Your task to perform on an android device: Add usb-c to usb-b to the cart on newegg, then select checkout. Image 0: 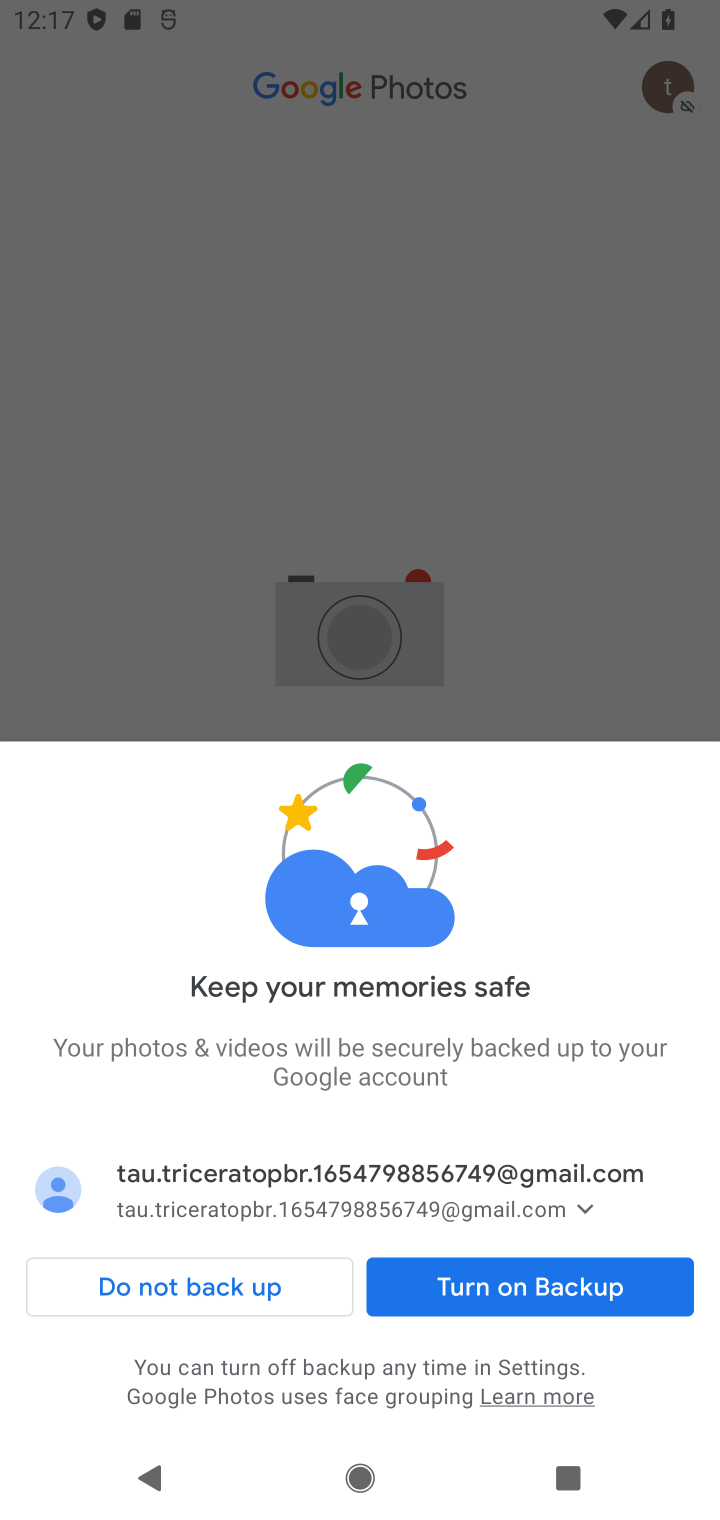
Step 0: click (218, 1287)
Your task to perform on an android device: Add usb-c to usb-b to the cart on newegg, then select checkout. Image 1: 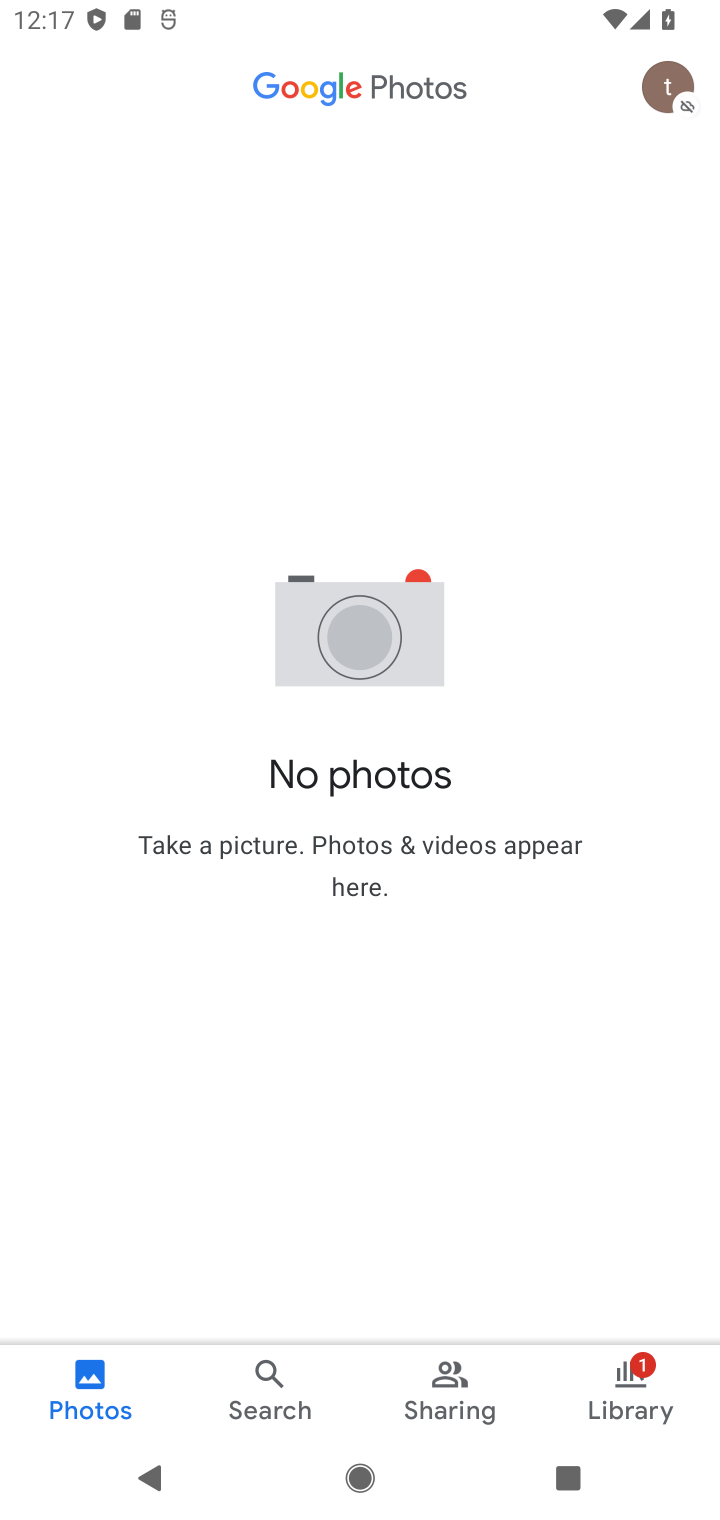
Step 1: press home button
Your task to perform on an android device: Add usb-c to usb-b to the cart on newegg, then select checkout. Image 2: 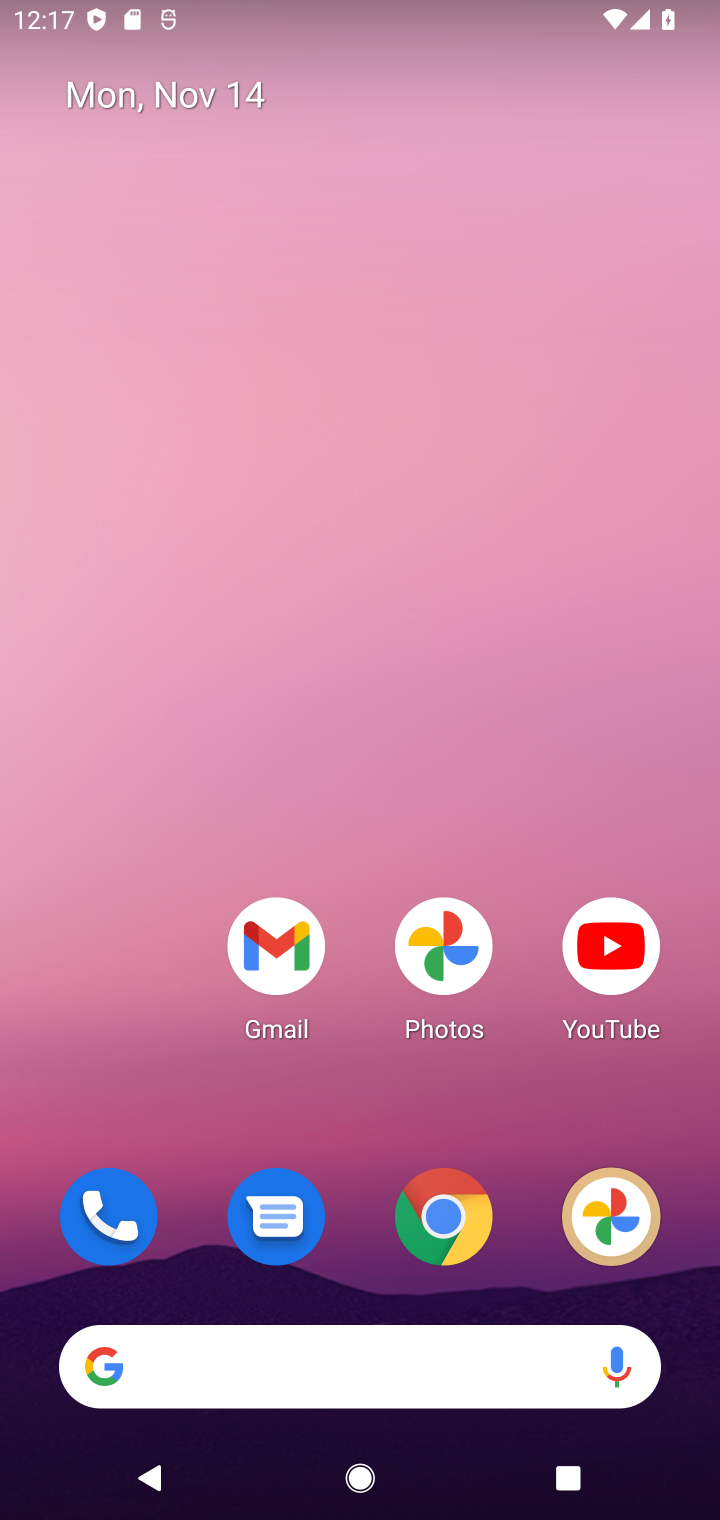
Step 2: click (453, 1226)
Your task to perform on an android device: Add usb-c to usb-b to the cart on newegg, then select checkout. Image 3: 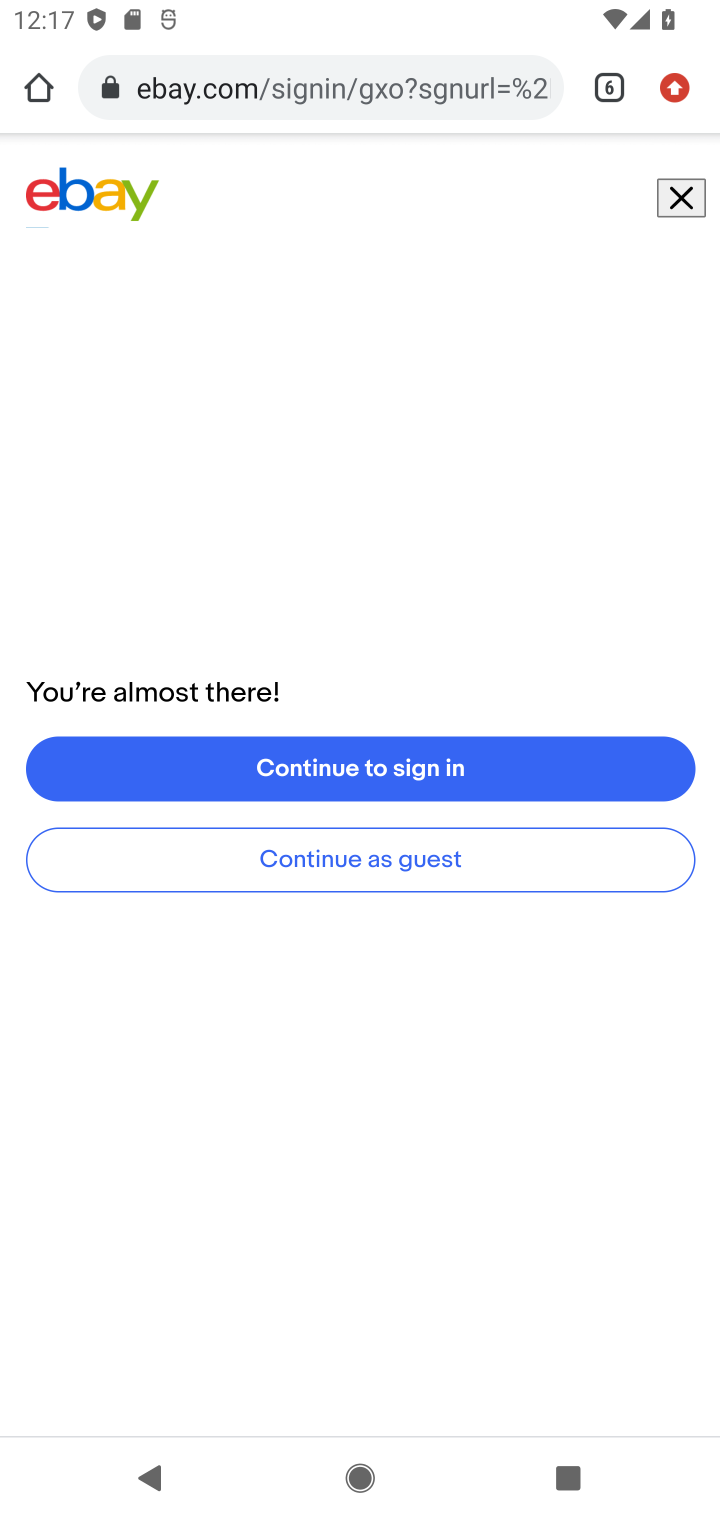
Step 3: click (606, 86)
Your task to perform on an android device: Add usb-c to usb-b to the cart on newegg, then select checkout. Image 4: 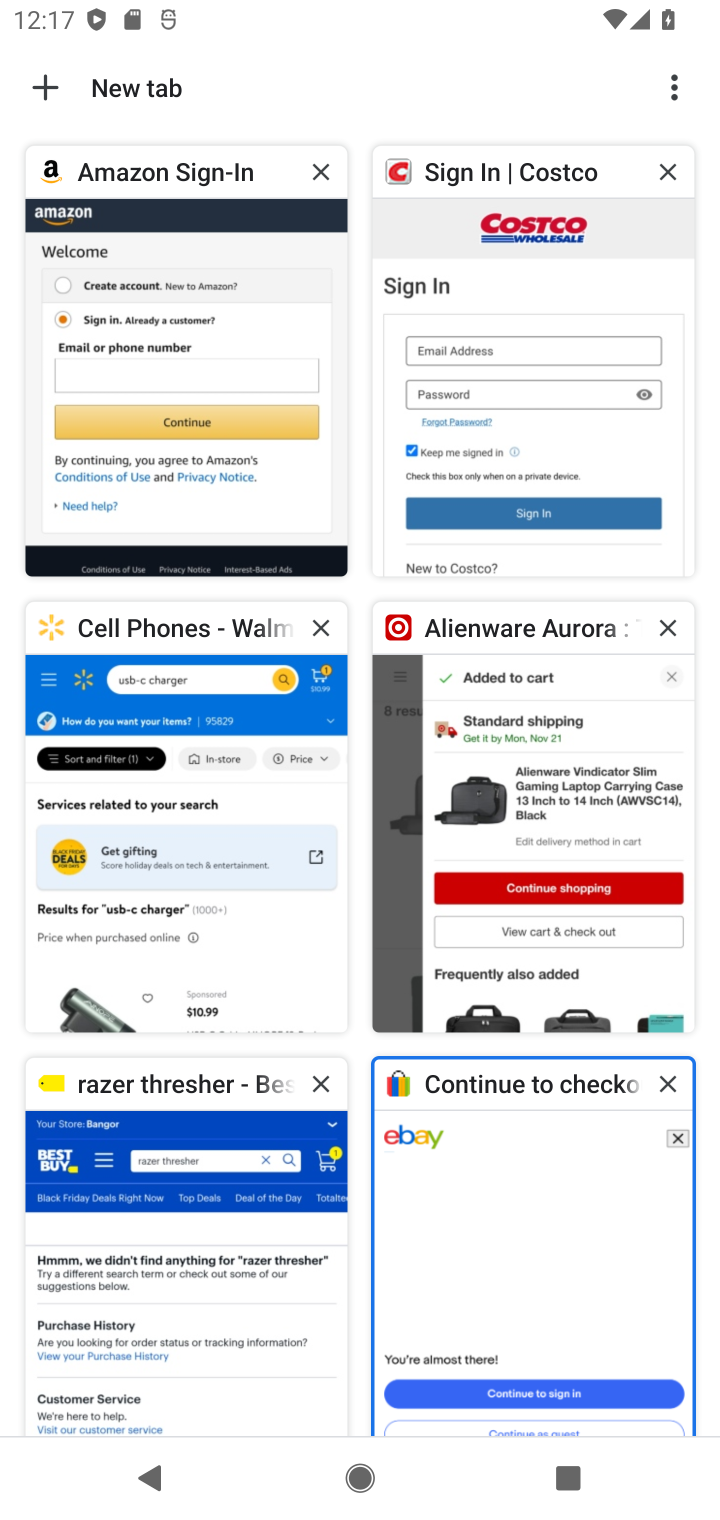
Step 4: click (41, 97)
Your task to perform on an android device: Add usb-c to usb-b to the cart on newegg, then select checkout. Image 5: 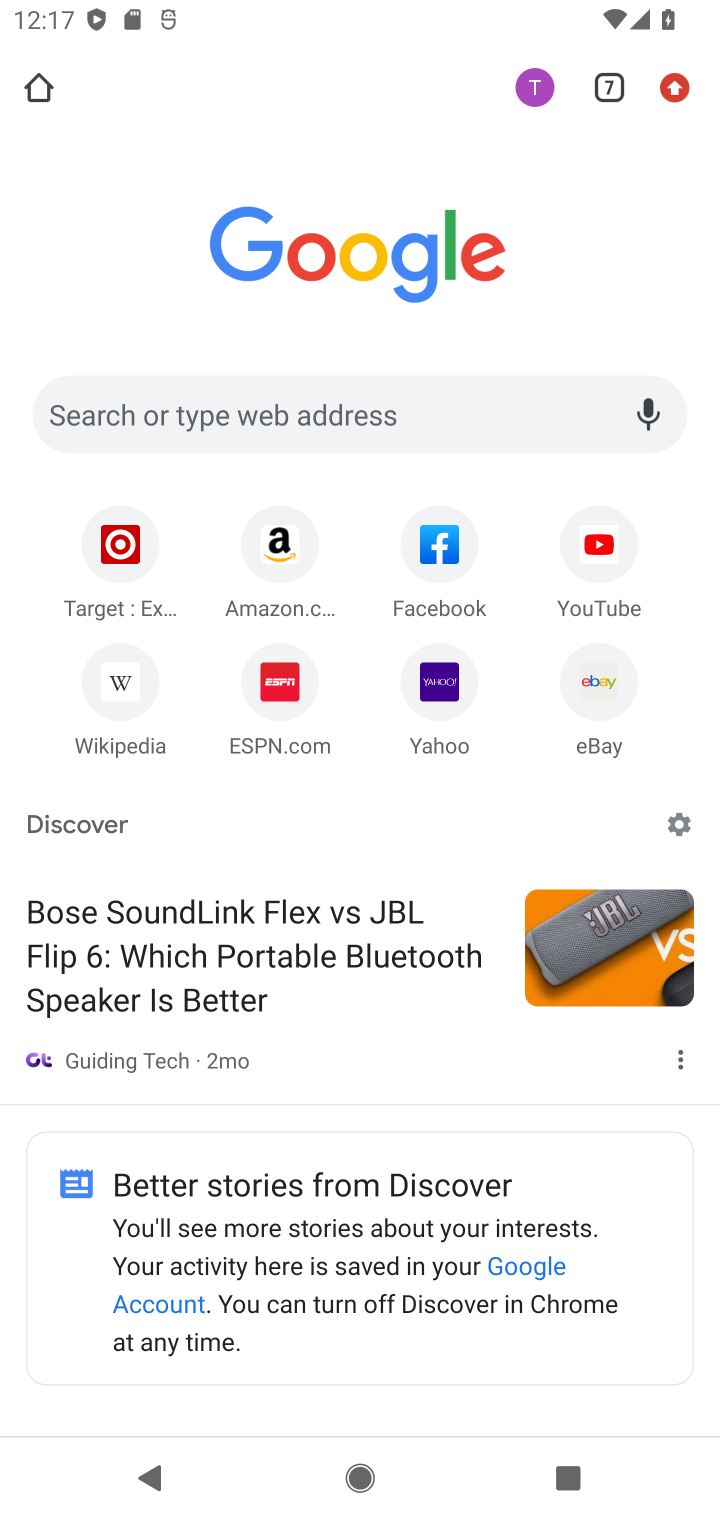
Step 5: click (293, 407)
Your task to perform on an android device: Add usb-c to usb-b to the cart on newegg, then select checkout. Image 6: 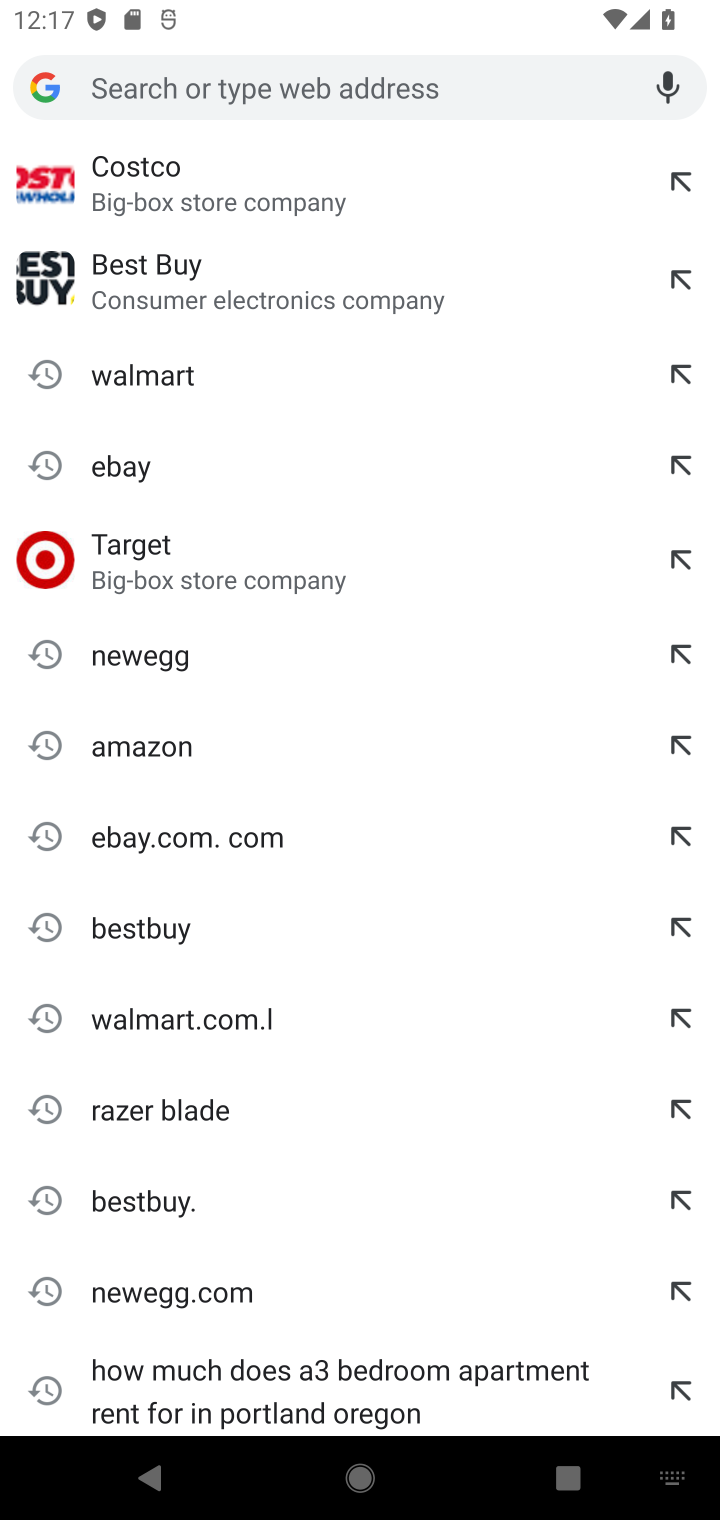
Step 6: click (119, 667)
Your task to perform on an android device: Add usb-c to usb-b to the cart on newegg, then select checkout. Image 7: 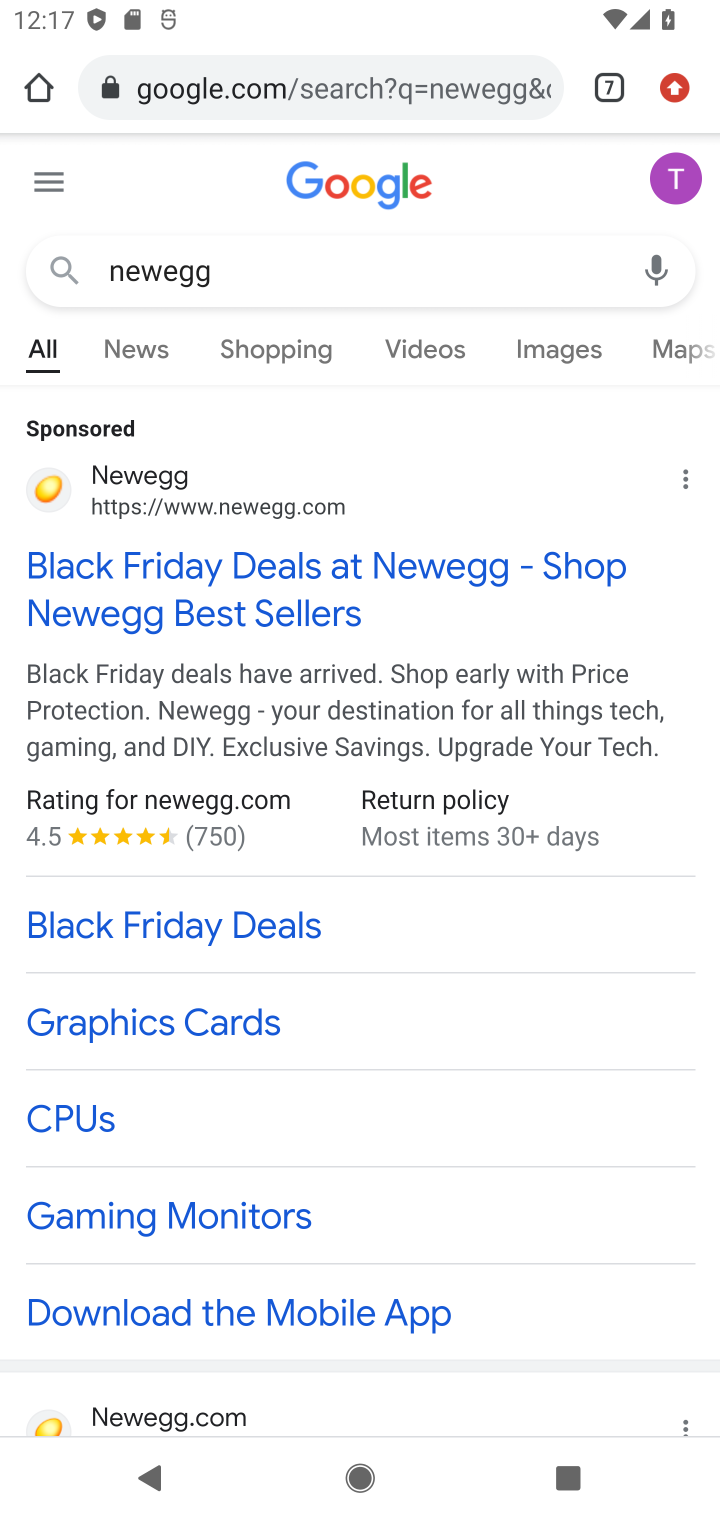
Step 7: drag from (325, 929) to (513, 264)
Your task to perform on an android device: Add usb-c to usb-b to the cart on newegg, then select checkout. Image 8: 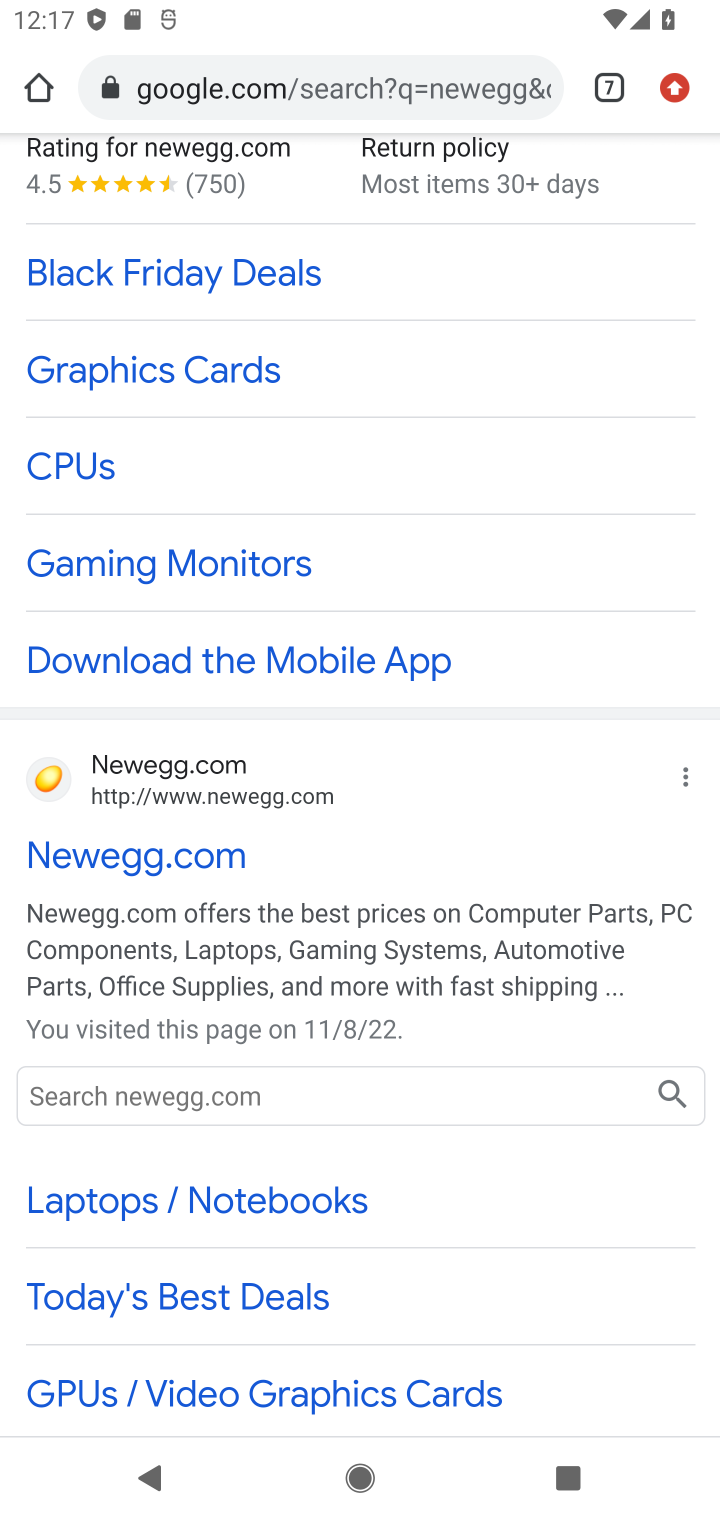
Step 8: click (232, 1093)
Your task to perform on an android device: Add usb-c to usb-b to the cart on newegg, then select checkout. Image 9: 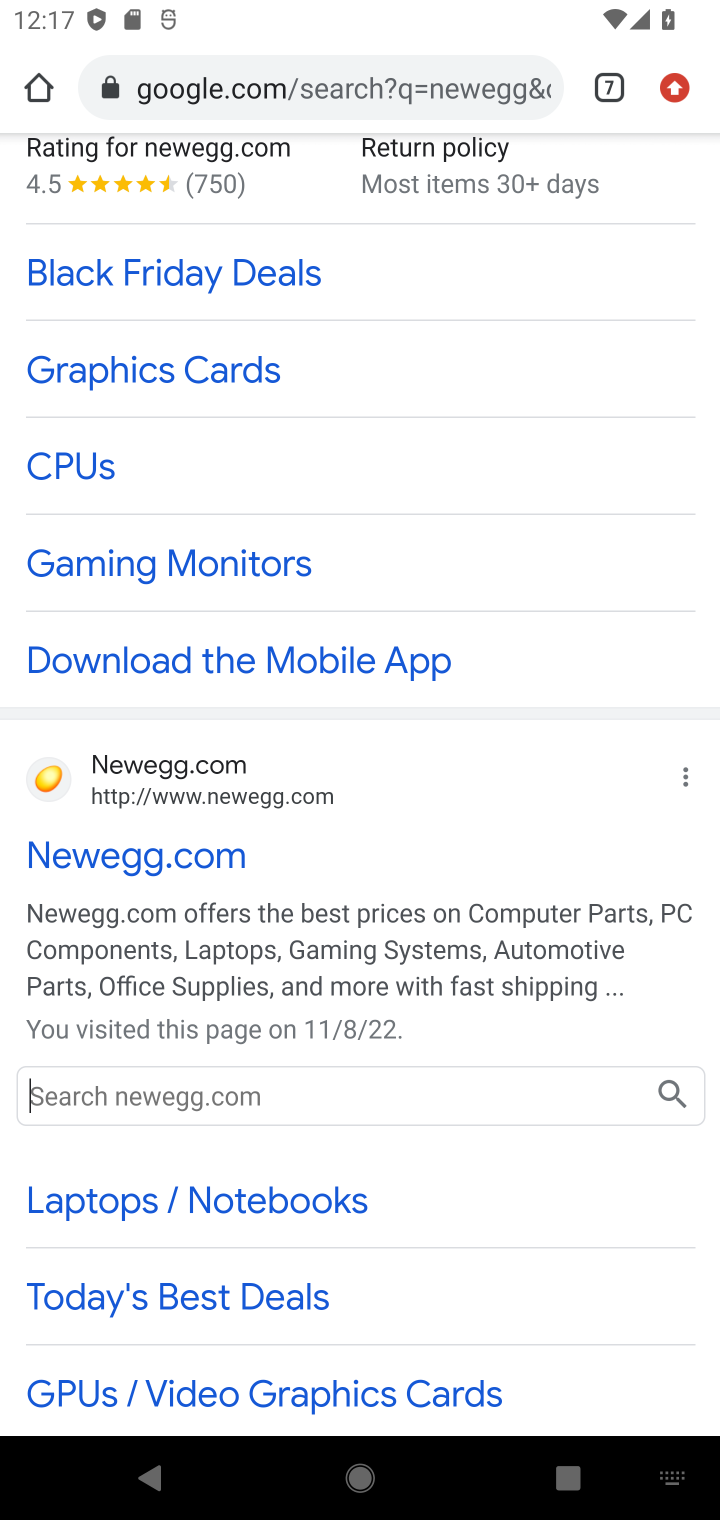
Step 9: type "usb-c to usb-b"
Your task to perform on an android device: Add usb-c to usb-b to the cart on newegg, then select checkout. Image 10: 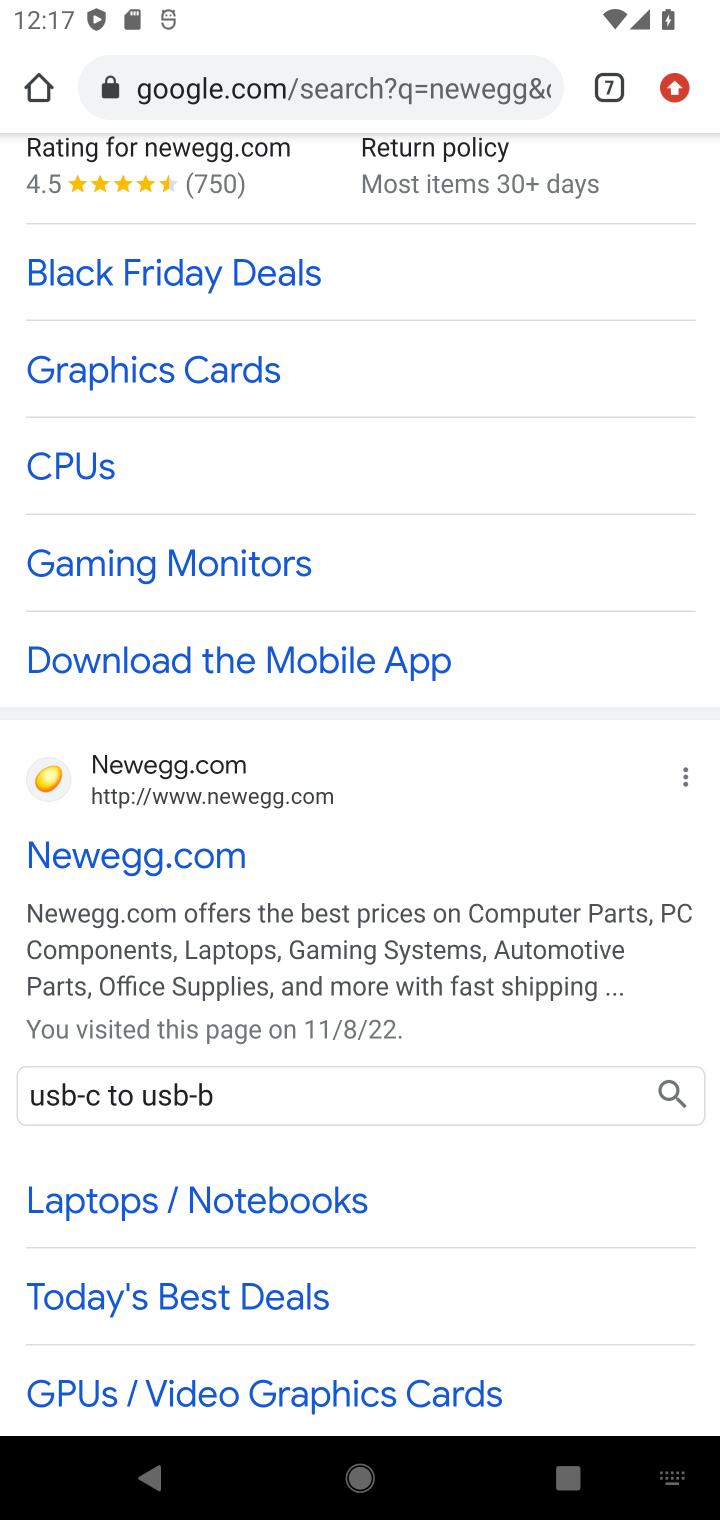
Step 10: click (672, 1086)
Your task to perform on an android device: Add usb-c to usb-b to the cart on newegg, then select checkout. Image 11: 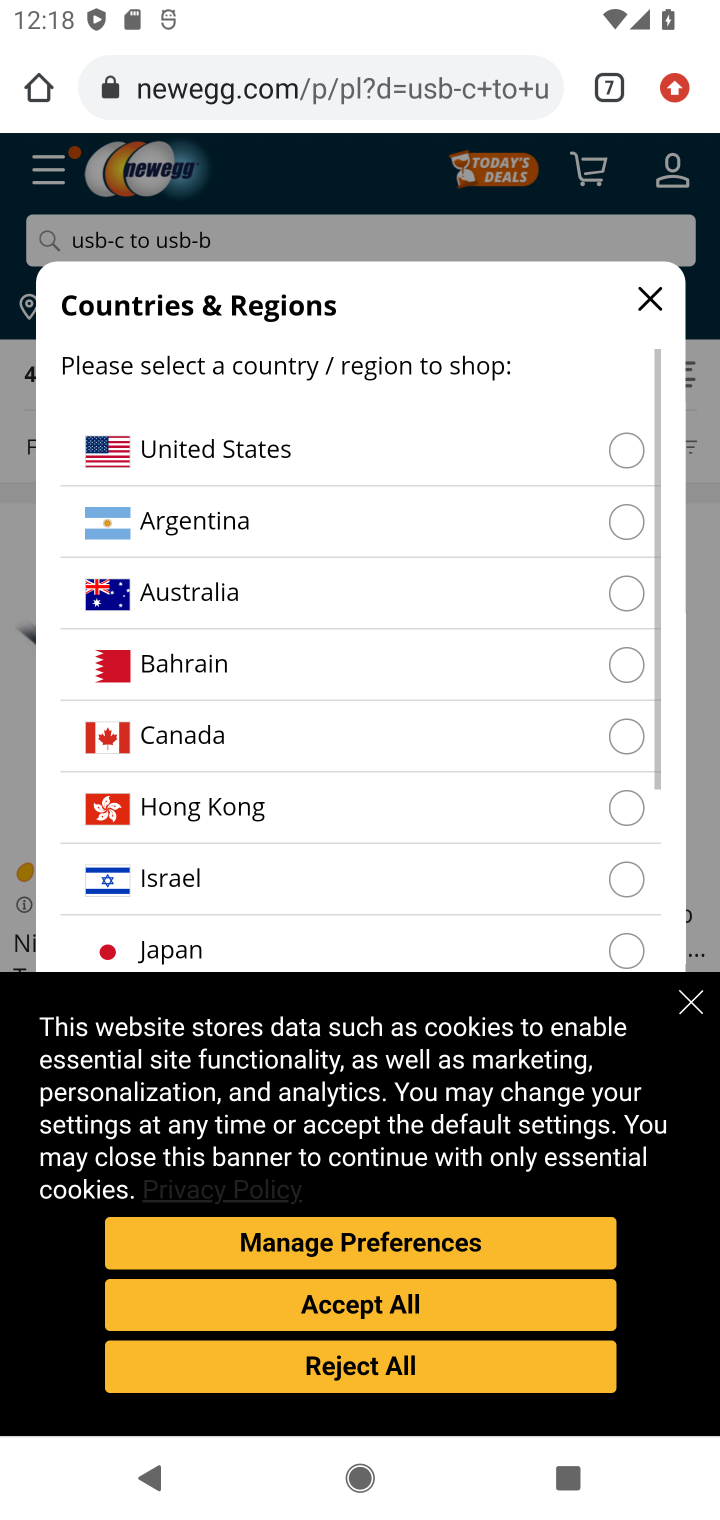
Step 11: click (424, 1370)
Your task to perform on an android device: Add usb-c to usb-b to the cart on newegg, then select checkout. Image 12: 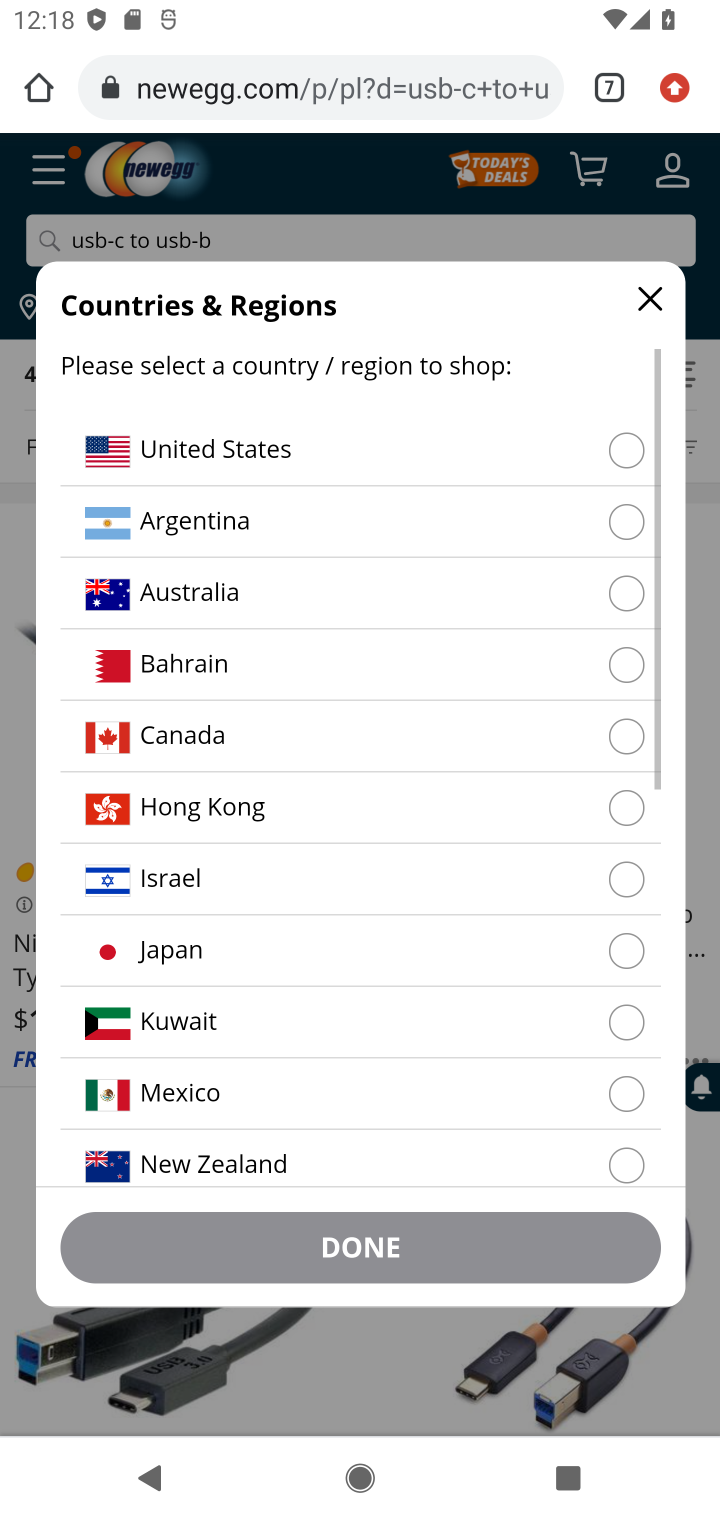
Step 12: click (627, 444)
Your task to perform on an android device: Add usb-c to usb-b to the cart on newegg, then select checkout. Image 13: 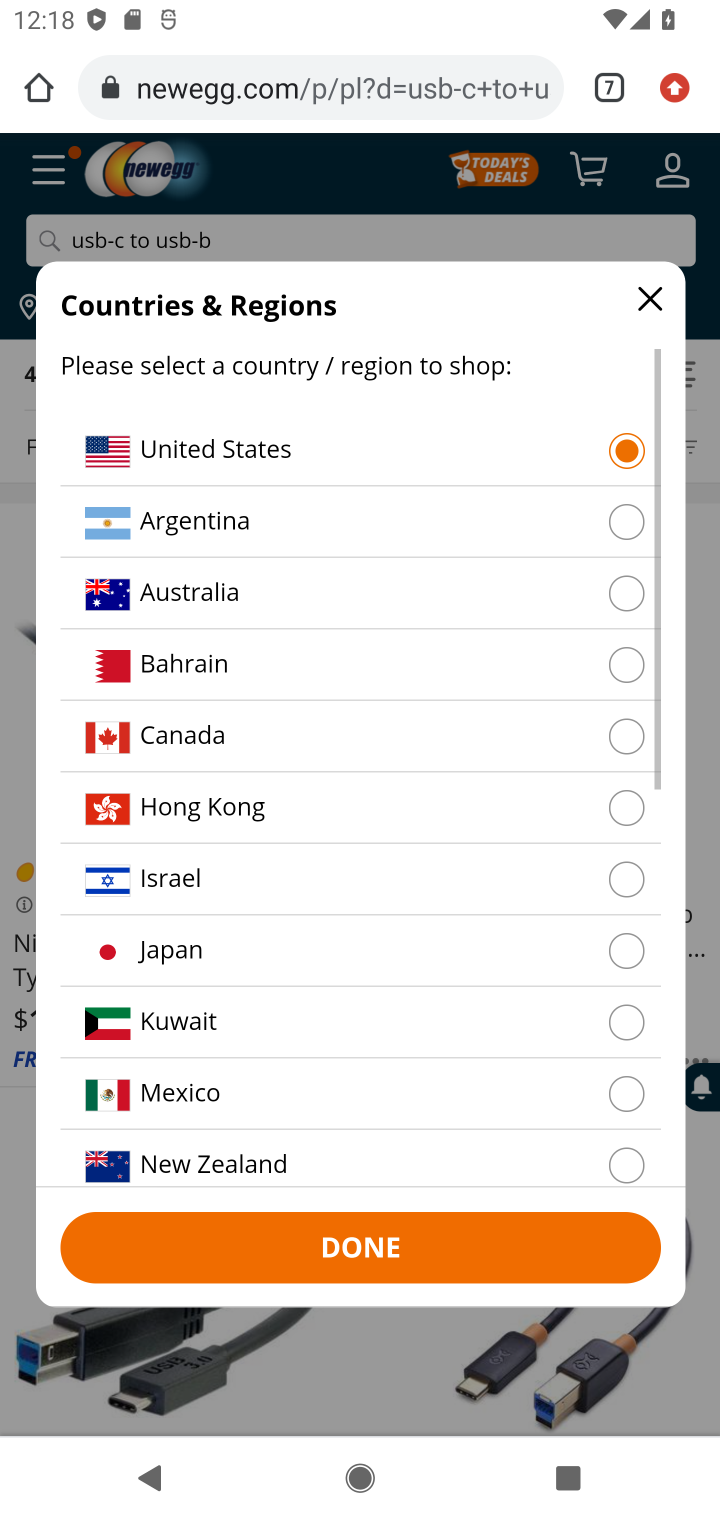
Step 13: click (365, 1258)
Your task to perform on an android device: Add usb-c to usb-b to the cart on newegg, then select checkout. Image 14: 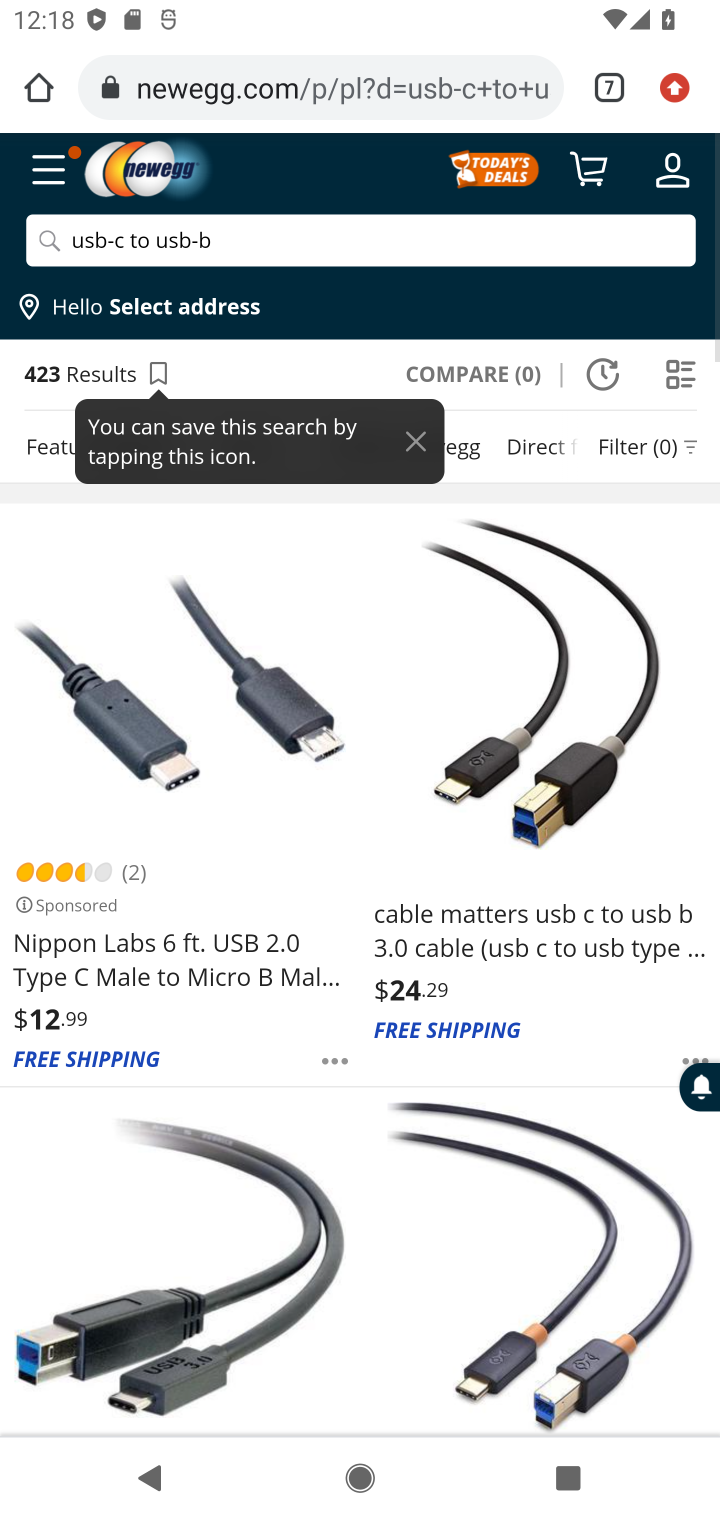
Step 14: click (499, 933)
Your task to perform on an android device: Add usb-c to usb-b to the cart on newegg, then select checkout. Image 15: 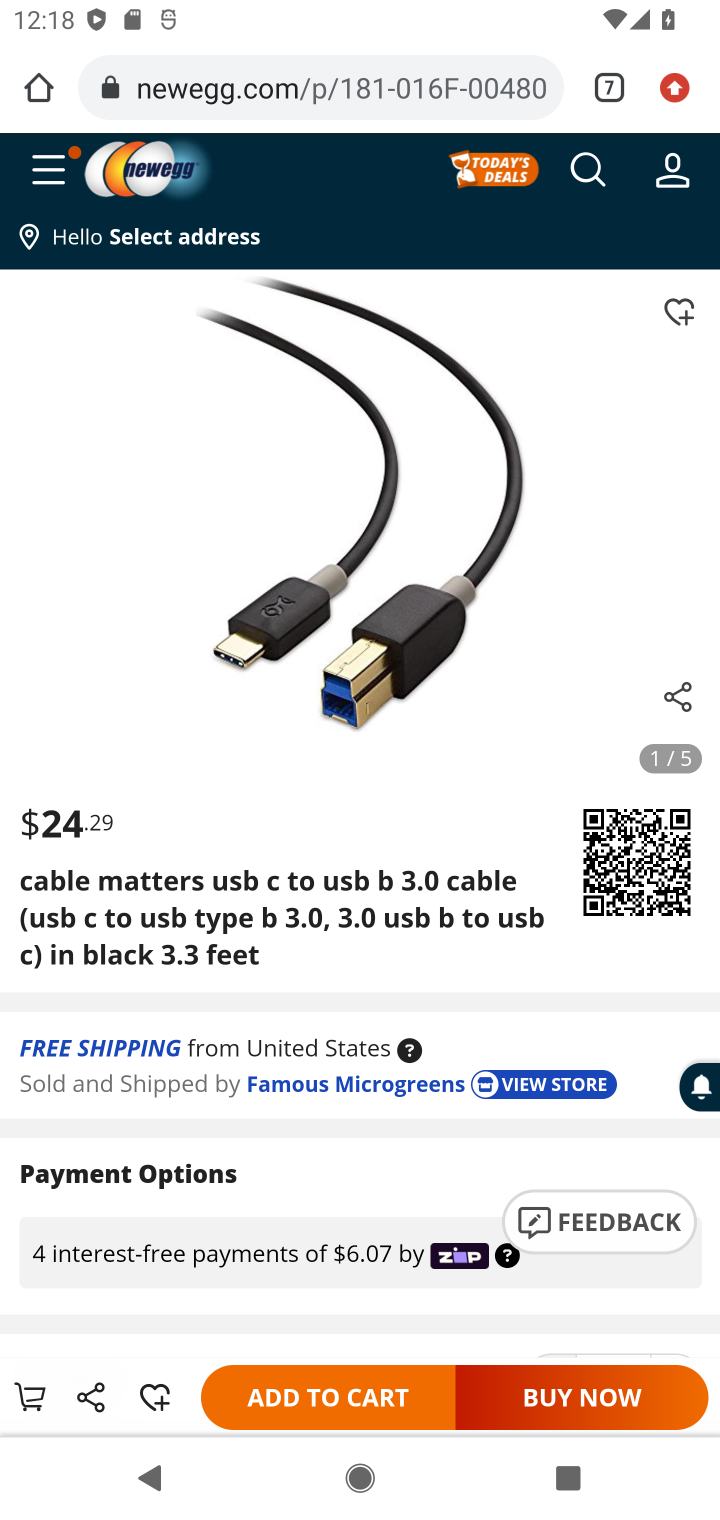
Step 15: click (352, 1393)
Your task to perform on an android device: Add usb-c to usb-b to the cart on newegg, then select checkout. Image 16: 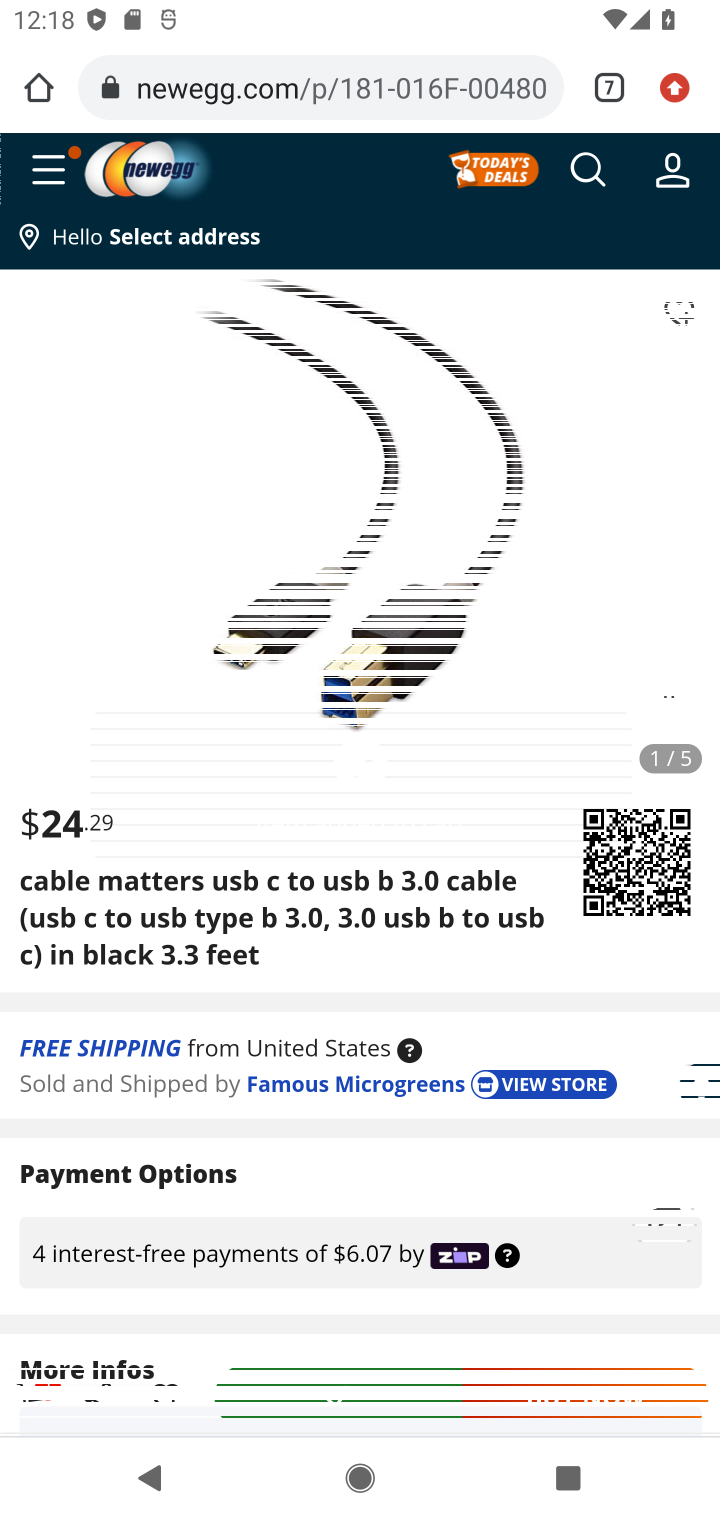
Step 16: click (35, 1397)
Your task to perform on an android device: Add usb-c to usb-b to the cart on newegg, then select checkout. Image 17: 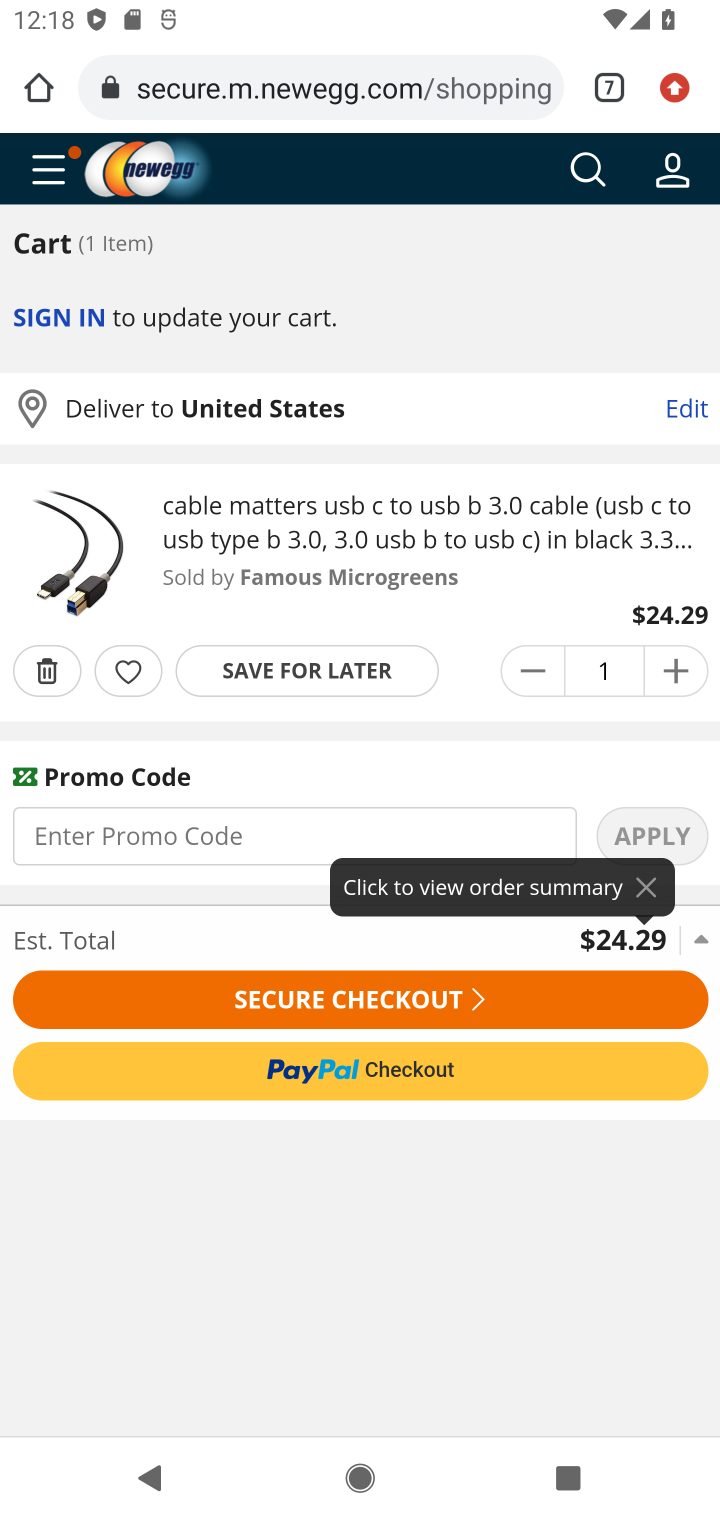
Step 17: click (412, 1000)
Your task to perform on an android device: Add usb-c to usb-b to the cart on newegg, then select checkout. Image 18: 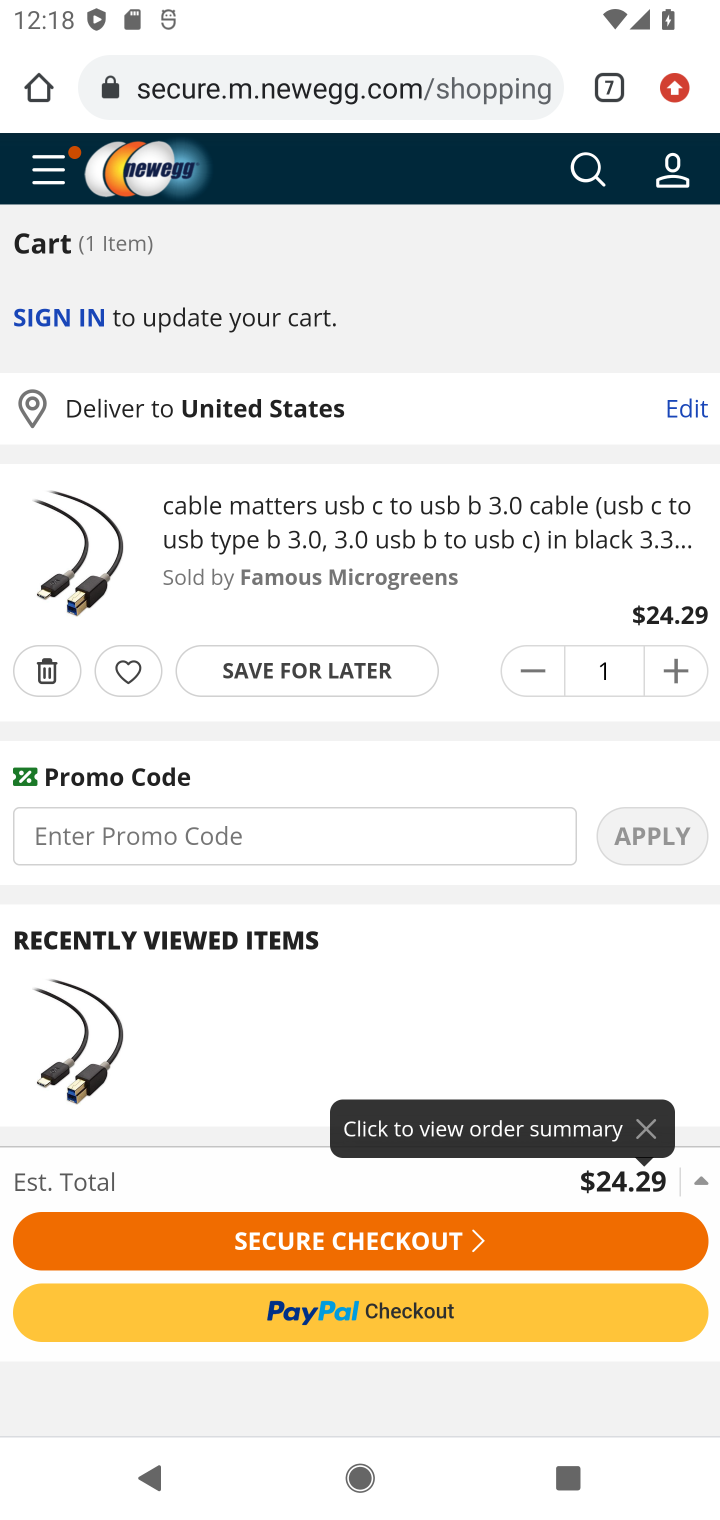
Step 18: click (415, 1239)
Your task to perform on an android device: Add usb-c to usb-b to the cart on newegg, then select checkout. Image 19: 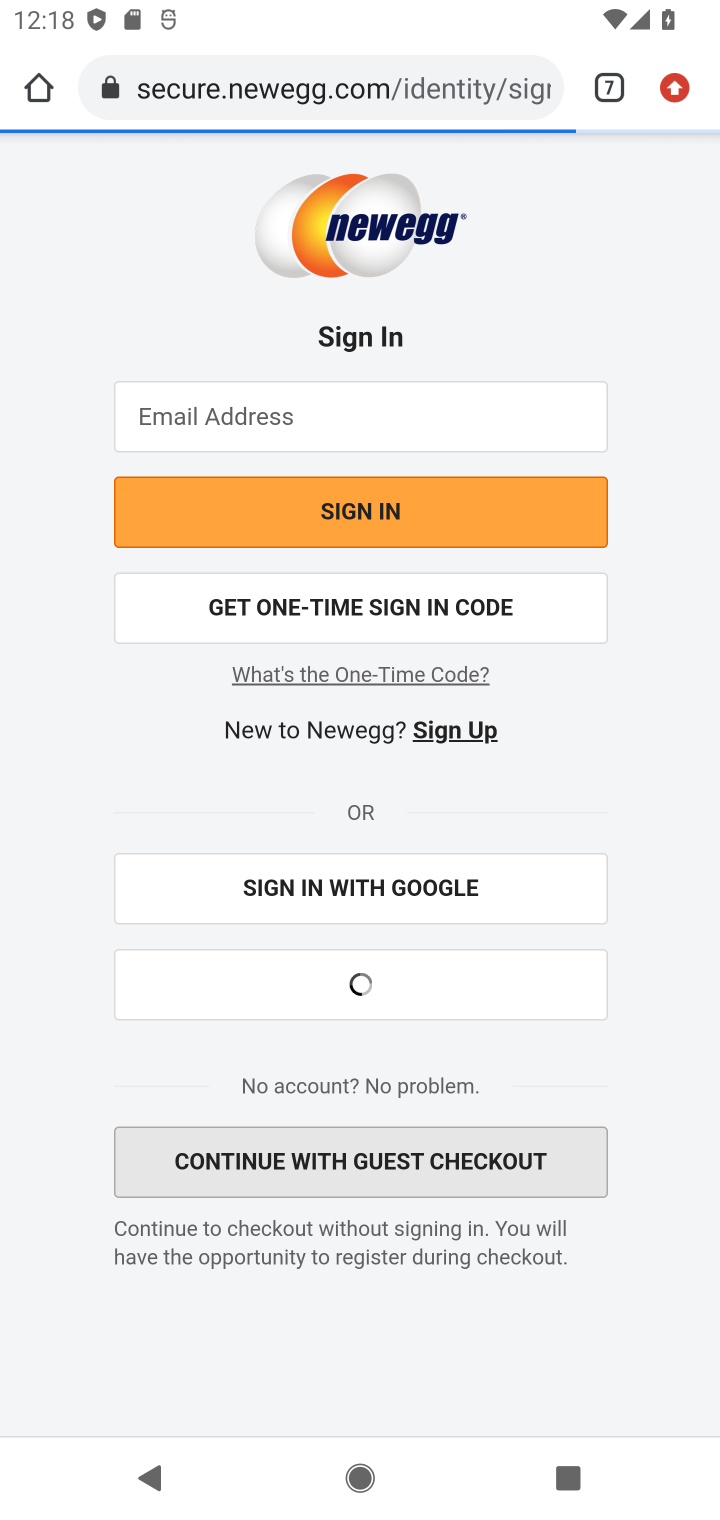
Step 19: task complete